Your task to perform on an android device: Open the stopwatch Image 0: 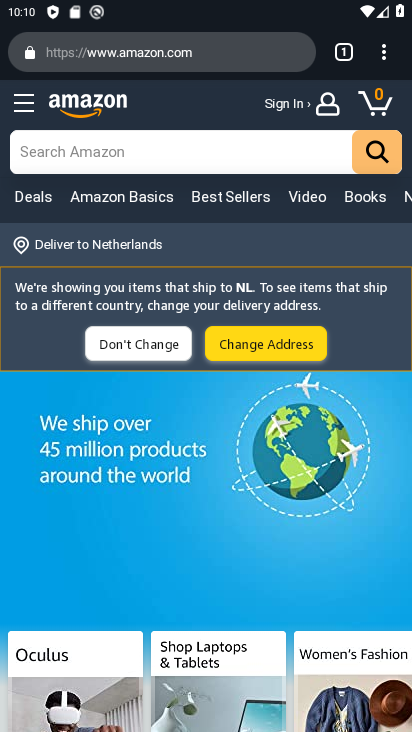
Step 0: press back button
Your task to perform on an android device: Open the stopwatch Image 1: 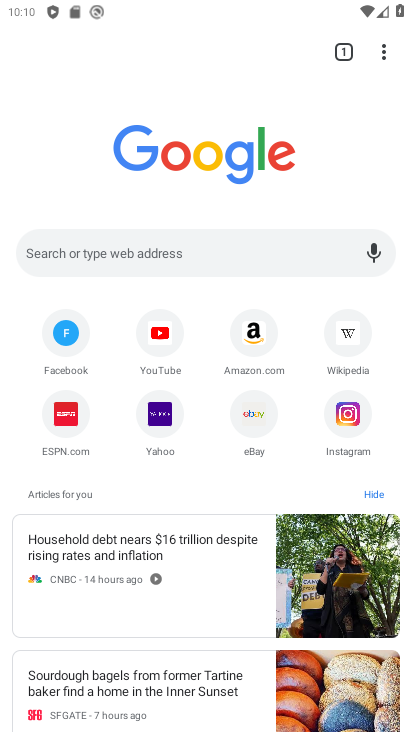
Step 1: press back button
Your task to perform on an android device: Open the stopwatch Image 2: 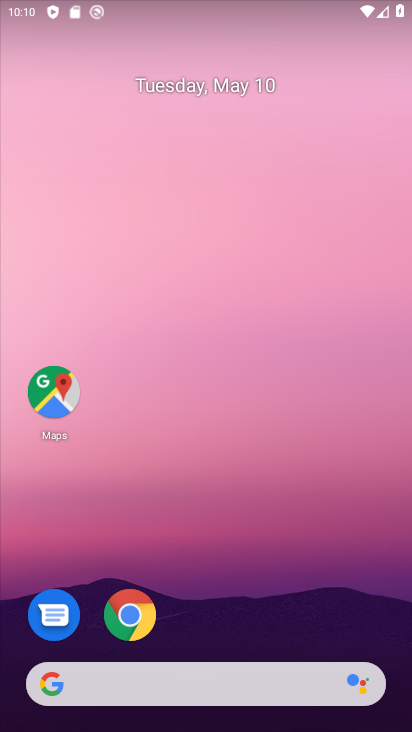
Step 2: drag from (237, 600) to (214, 147)
Your task to perform on an android device: Open the stopwatch Image 3: 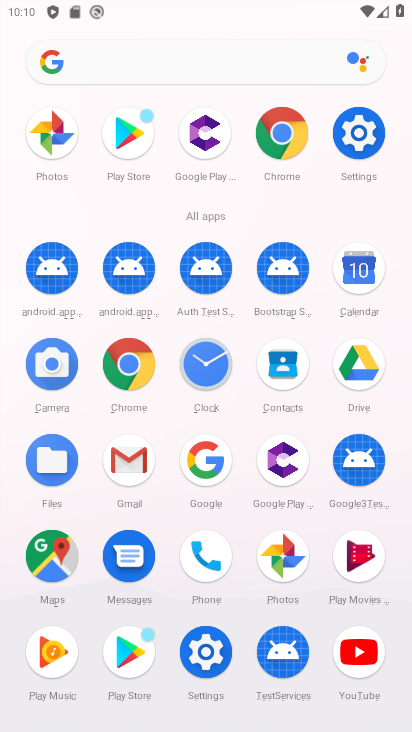
Step 3: click (205, 365)
Your task to perform on an android device: Open the stopwatch Image 4: 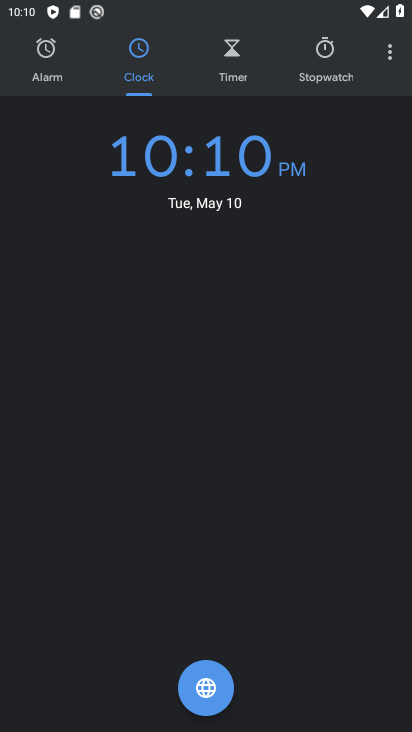
Step 4: click (325, 53)
Your task to perform on an android device: Open the stopwatch Image 5: 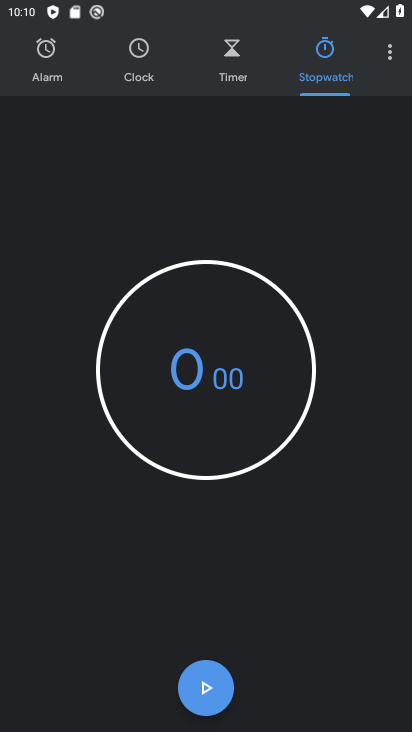
Step 5: task complete